Your task to perform on an android device: Open calendar and show me the first week of next month Image 0: 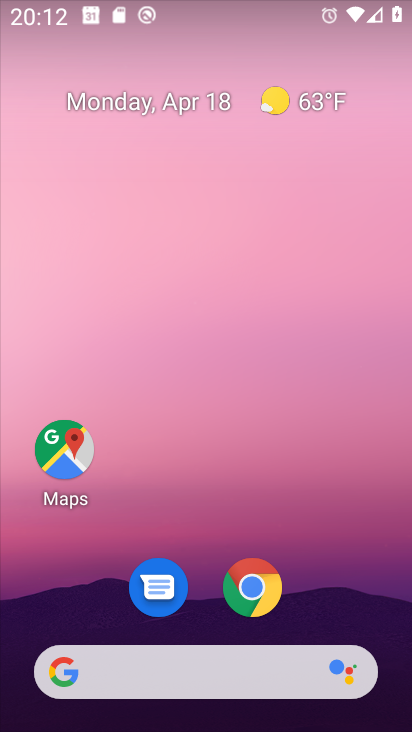
Step 0: drag from (347, 599) to (334, 33)
Your task to perform on an android device: Open calendar and show me the first week of next month Image 1: 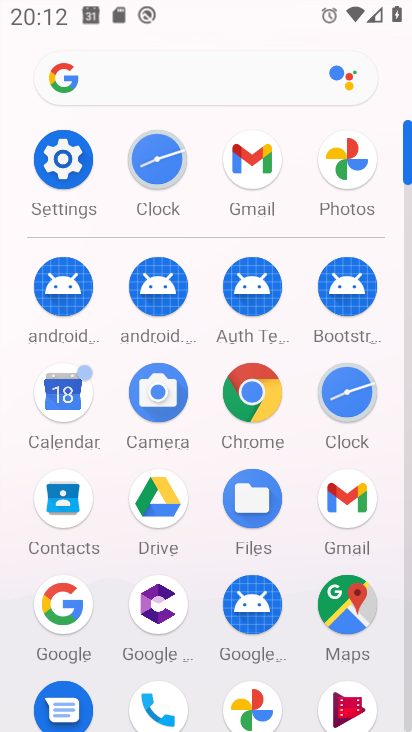
Step 1: click (62, 393)
Your task to perform on an android device: Open calendar and show me the first week of next month Image 2: 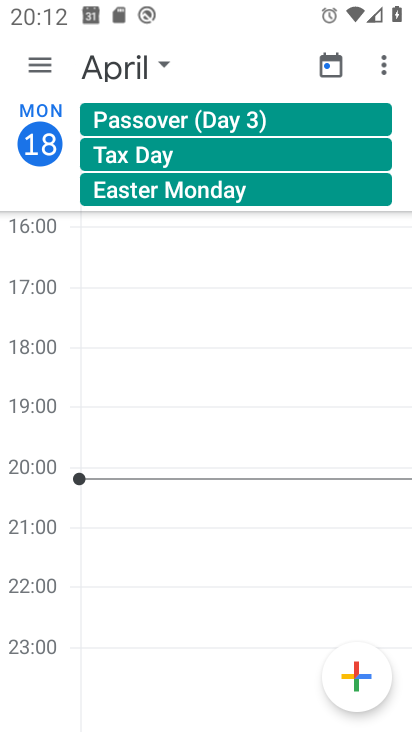
Step 2: click (121, 69)
Your task to perform on an android device: Open calendar and show me the first week of next month Image 3: 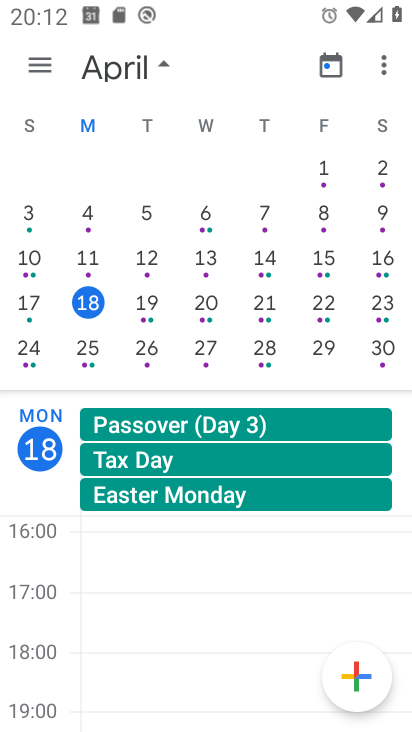
Step 3: drag from (376, 259) to (15, 289)
Your task to perform on an android device: Open calendar and show me the first week of next month Image 4: 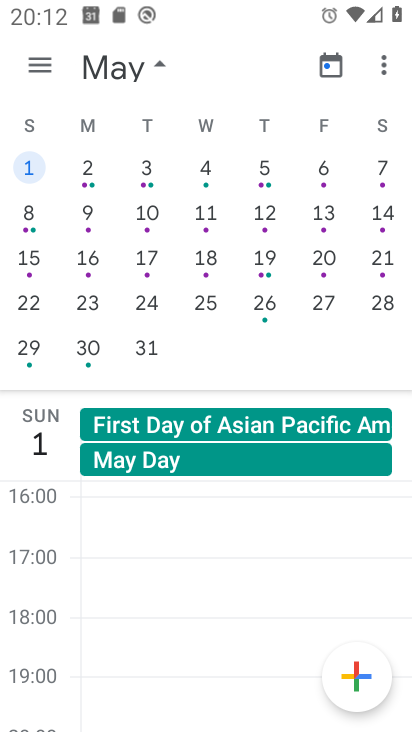
Step 4: click (219, 169)
Your task to perform on an android device: Open calendar and show me the first week of next month Image 5: 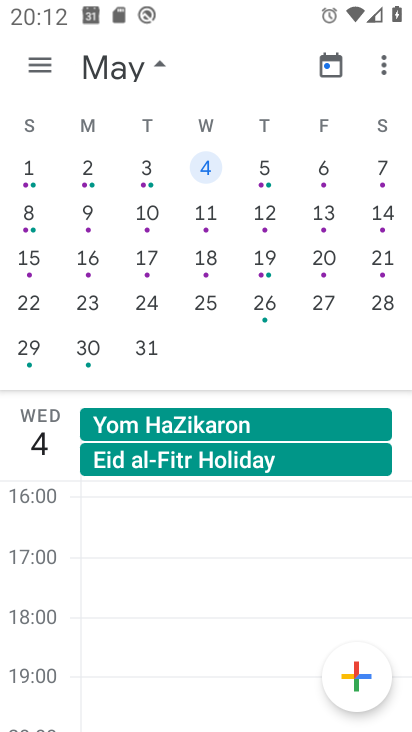
Step 5: task complete